Your task to perform on an android device: What's on my calendar today? Image 0: 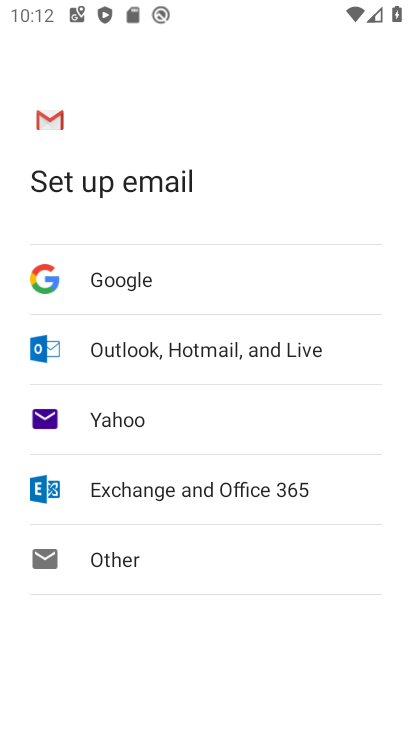
Step 0: press home button
Your task to perform on an android device: What's on my calendar today? Image 1: 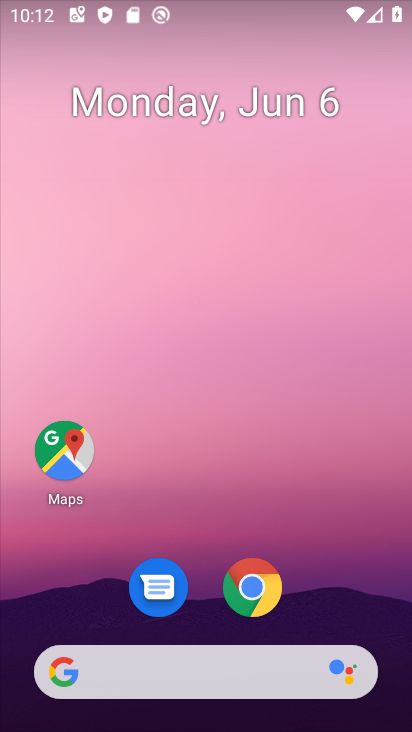
Step 1: drag from (87, 726) to (120, 28)
Your task to perform on an android device: What's on my calendar today? Image 2: 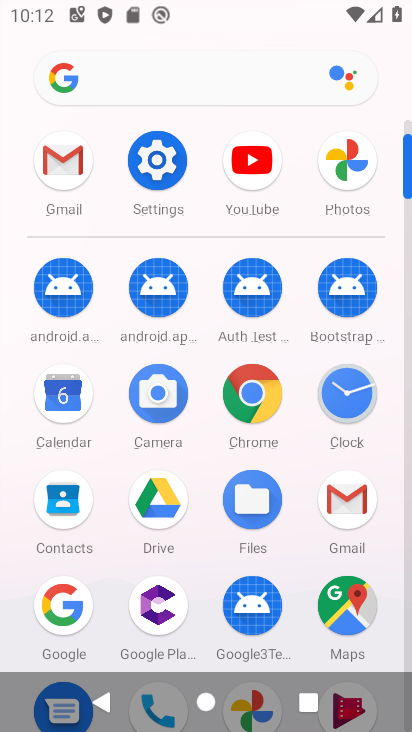
Step 2: click (64, 391)
Your task to perform on an android device: What's on my calendar today? Image 3: 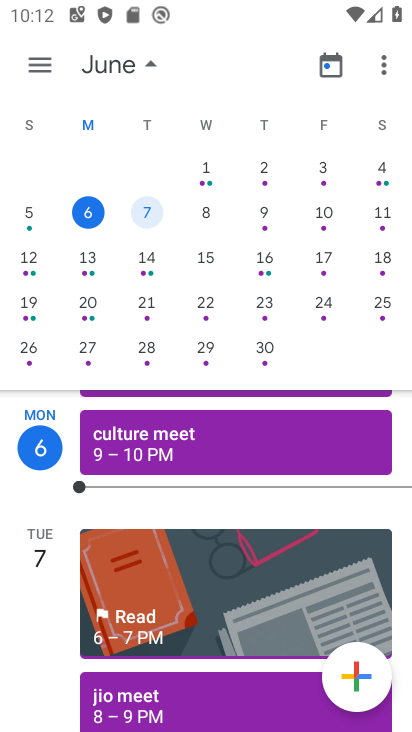
Step 3: click (89, 227)
Your task to perform on an android device: What's on my calendar today? Image 4: 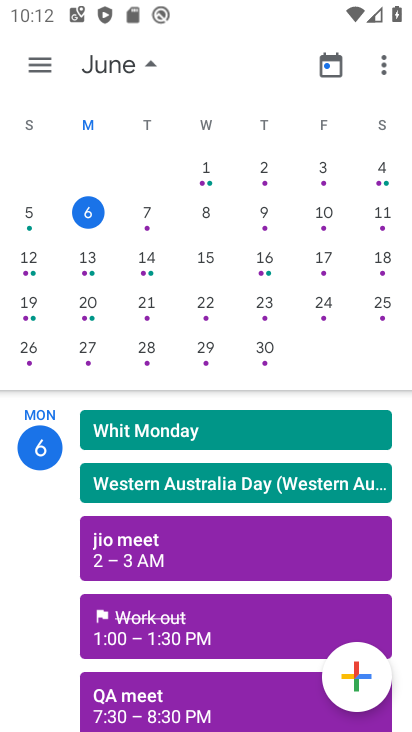
Step 4: task complete